Your task to perform on an android device: allow cookies in the chrome app Image 0: 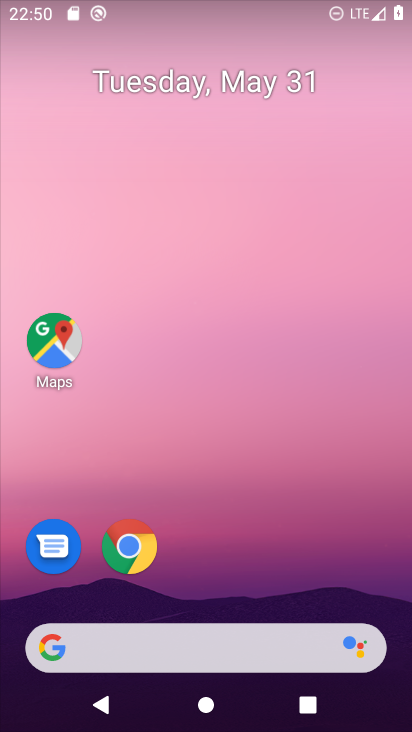
Step 0: click (131, 544)
Your task to perform on an android device: allow cookies in the chrome app Image 1: 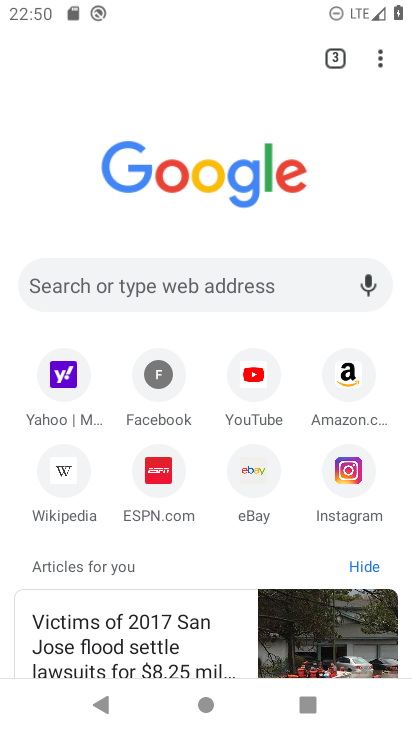
Step 1: click (381, 51)
Your task to perform on an android device: allow cookies in the chrome app Image 2: 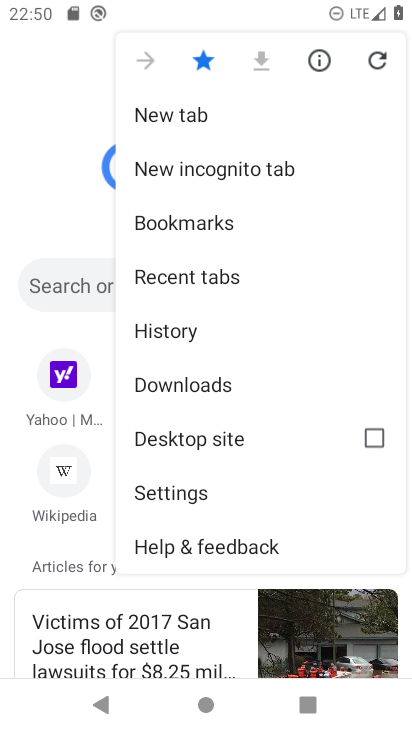
Step 2: click (188, 487)
Your task to perform on an android device: allow cookies in the chrome app Image 3: 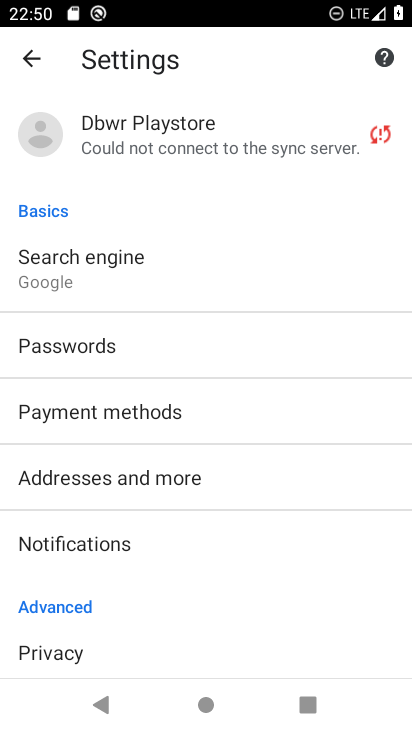
Step 3: drag from (212, 572) to (245, 249)
Your task to perform on an android device: allow cookies in the chrome app Image 4: 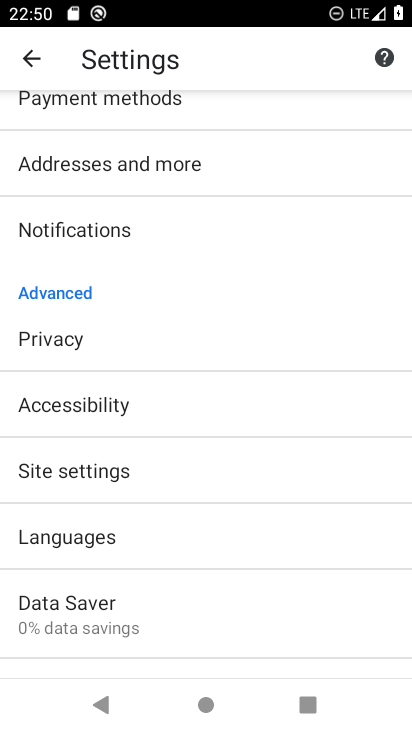
Step 4: click (82, 469)
Your task to perform on an android device: allow cookies in the chrome app Image 5: 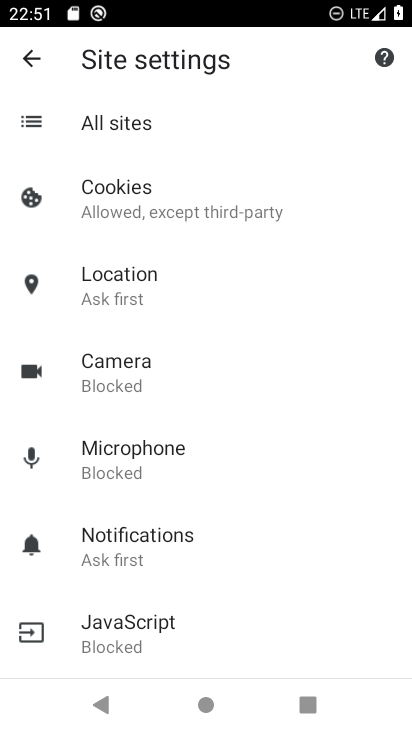
Step 5: click (120, 209)
Your task to perform on an android device: allow cookies in the chrome app Image 6: 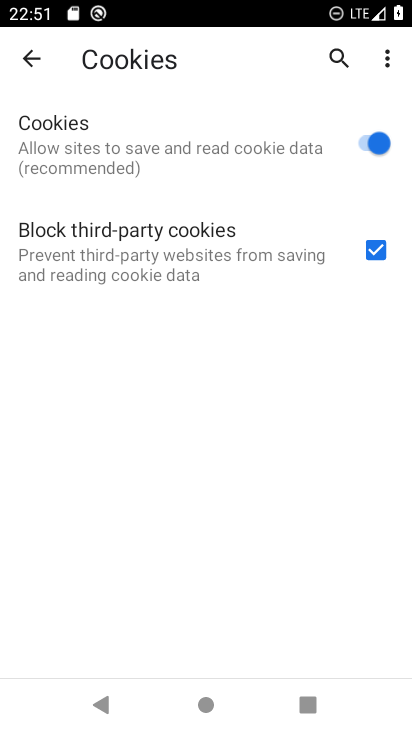
Step 6: task complete